Your task to perform on an android device: turn on airplane mode Image 0: 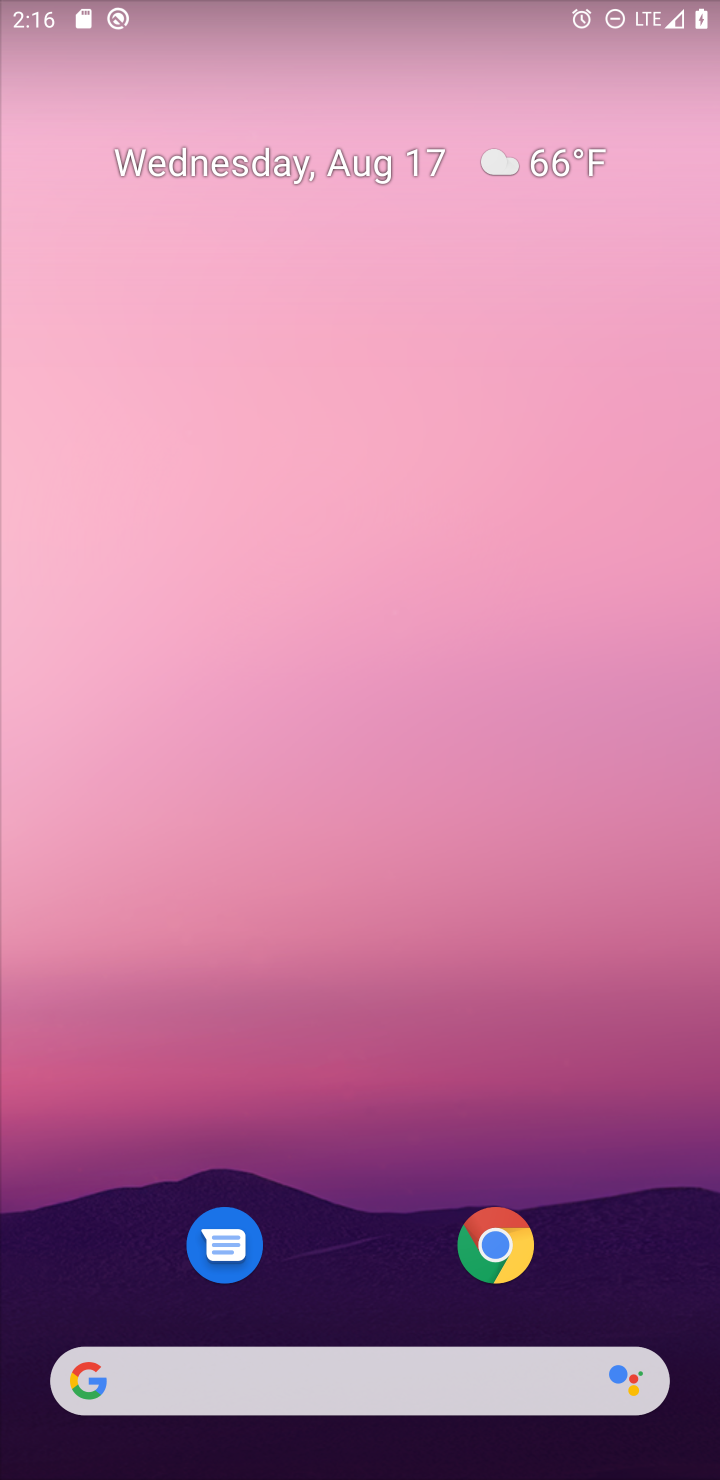
Step 0: drag from (378, 1316) to (267, 15)
Your task to perform on an android device: turn on airplane mode Image 1: 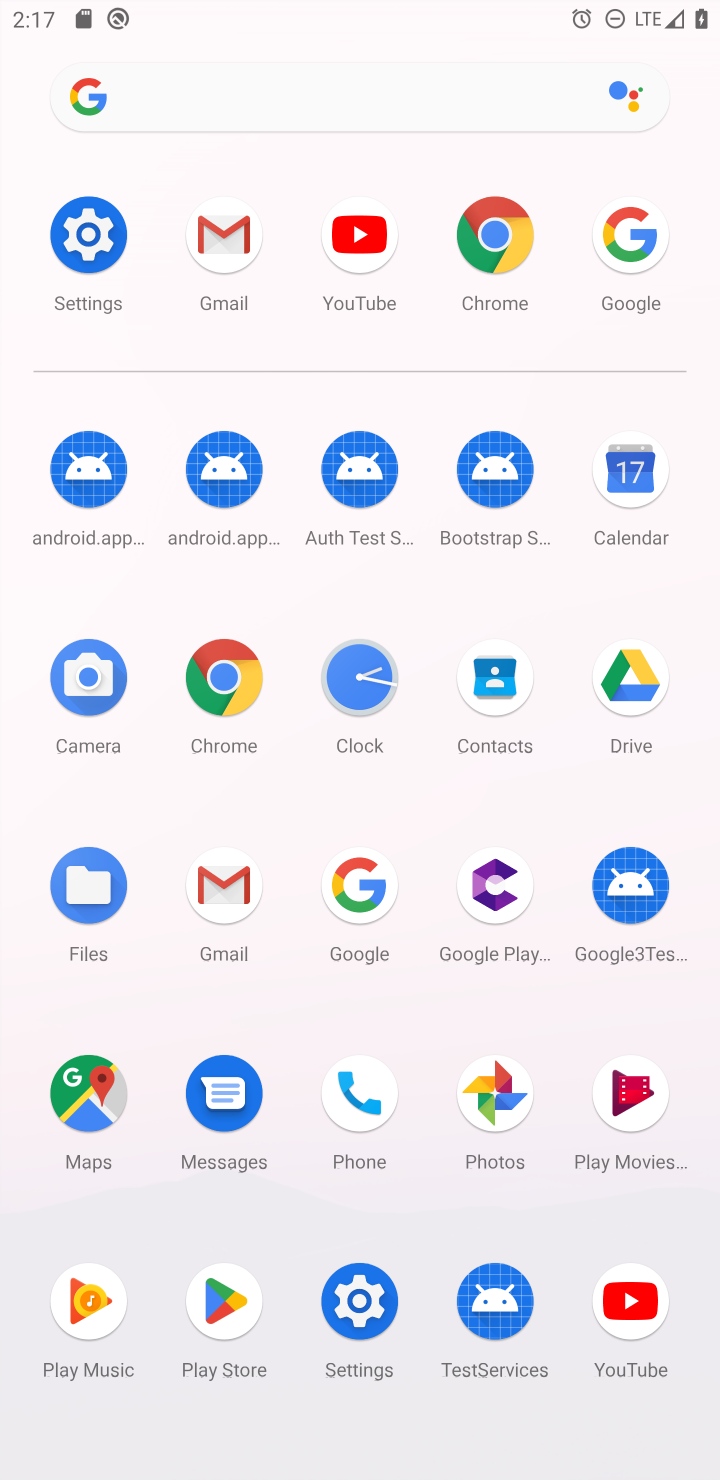
Step 1: click (78, 225)
Your task to perform on an android device: turn on airplane mode Image 2: 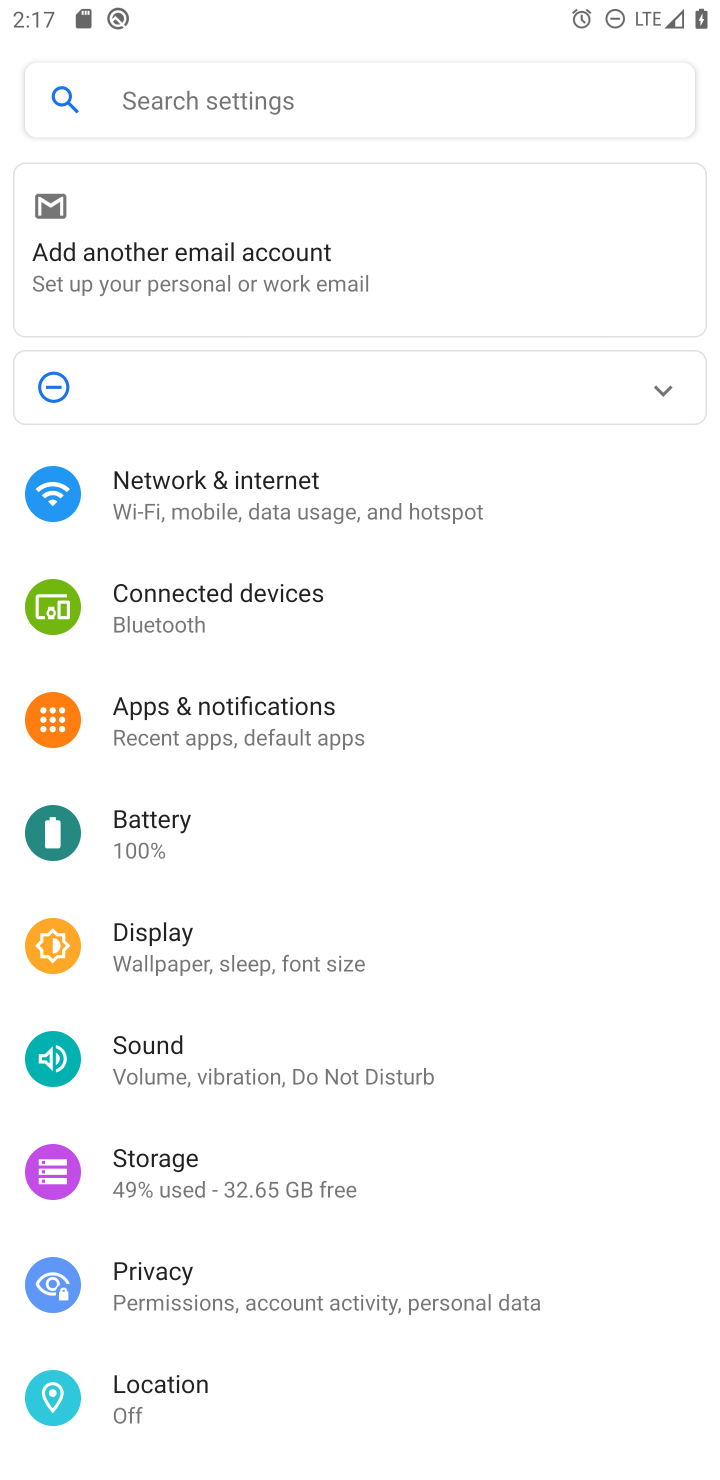
Step 2: click (161, 495)
Your task to perform on an android device: turn on airplane mode Image 3: 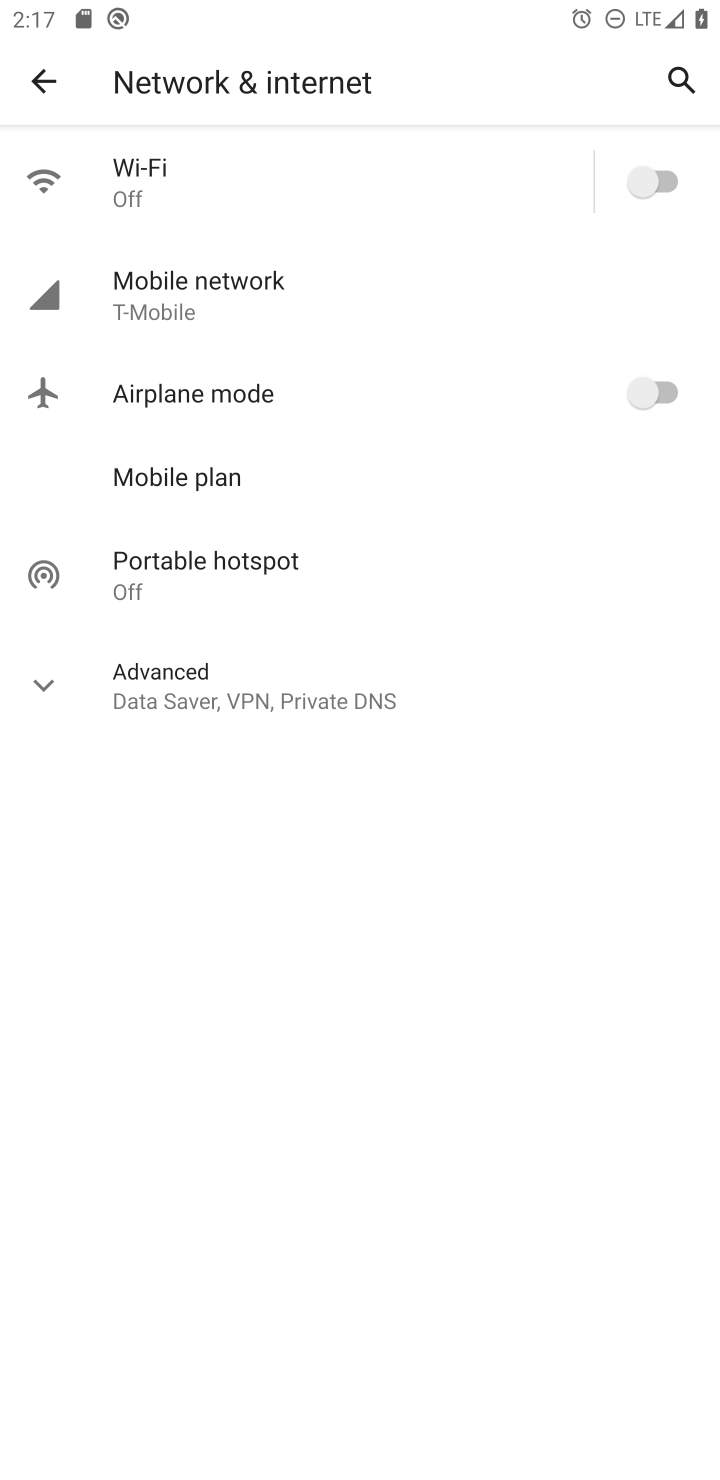
Step 3: click (667, 387)
Your task to perform on an android device: turn on airplane mode Image 4: 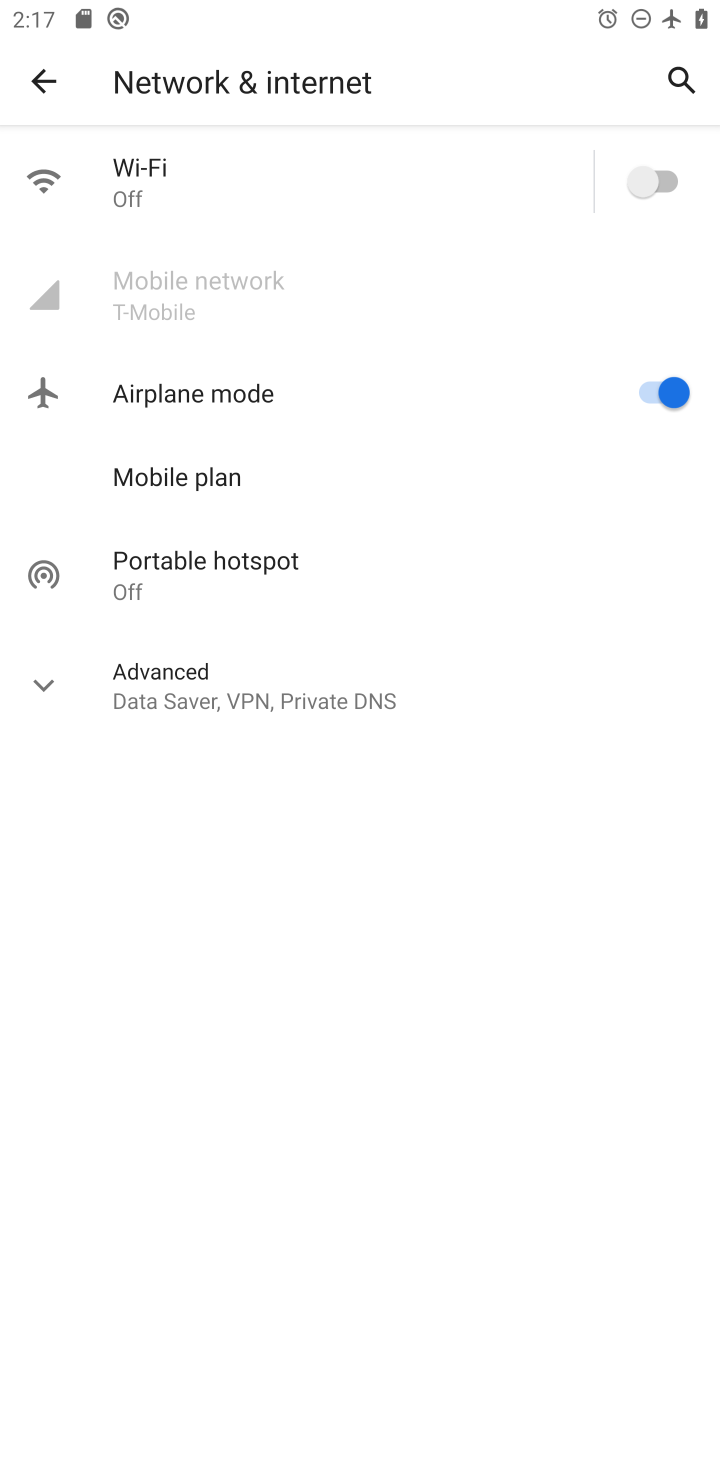
Step 4: task complete